Your task to perform on an android device: What's on my calendar today? Image 0: 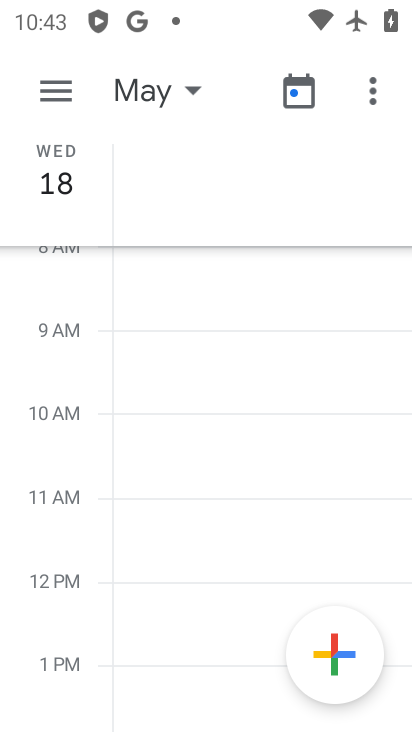
Step 0: click (71, 164)
Your task to perform on an android device: What's on my calendar today? Image 1: 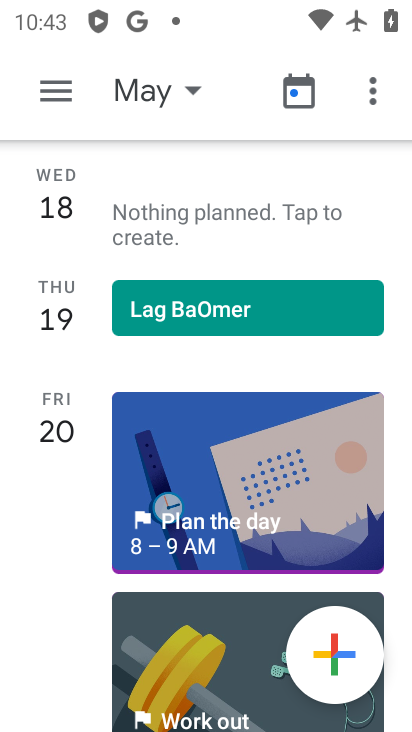
Step 1: task complete